Your task to perform on an android device: Search for pizza restaurants on Maps Image 0: 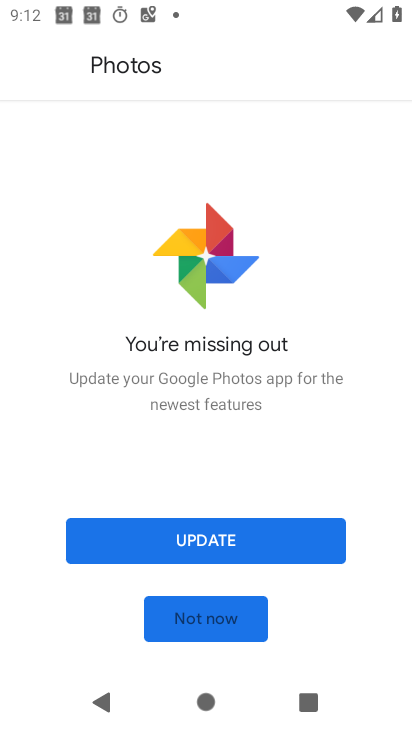
Step 0: press home button
Your task to perform on an android device: Search for pizza restaurants on Maps Image 1: 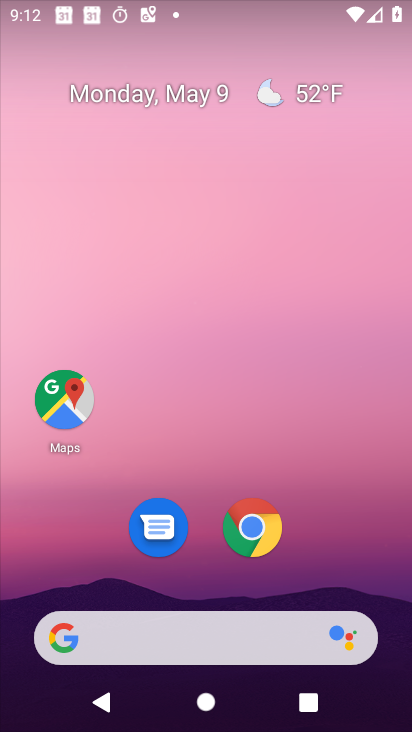
Step 1: drag from (337, 526) to (330, 248)
Your task to perform on an android device: Search for pizza restaurants on Maps Image 2: 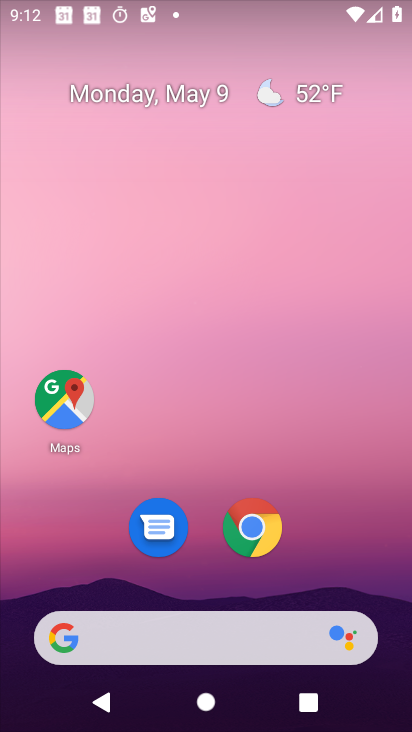
Step 2: drag from (341, 569) to (373, 155)
Your task to perform on an android device: Search for pizza restaurants on Maps Image 3: 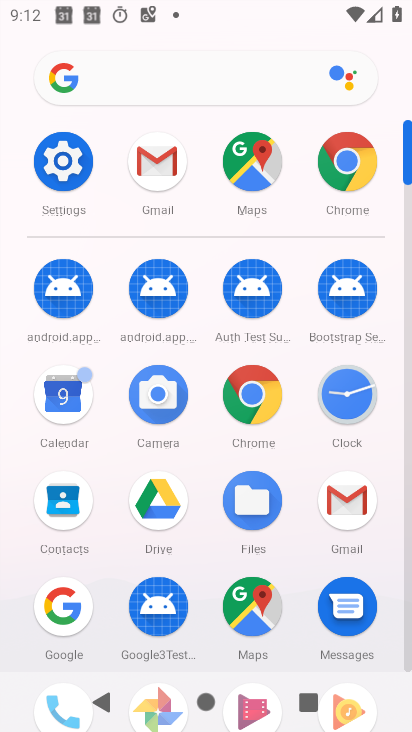
Step 3: click (272, 612)
Your task to perform on an android device: Search for pizza restaurants on Maps Image 4: 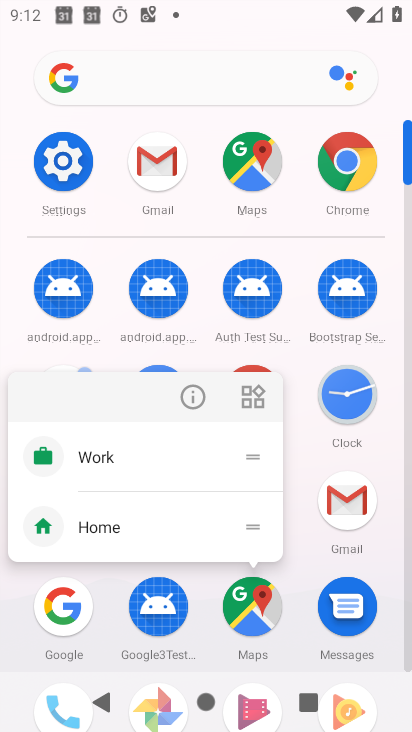
Step 4: click (261, 612)
Your task to perform on an android device: Search for pizza restaurants on Maps Image 5: 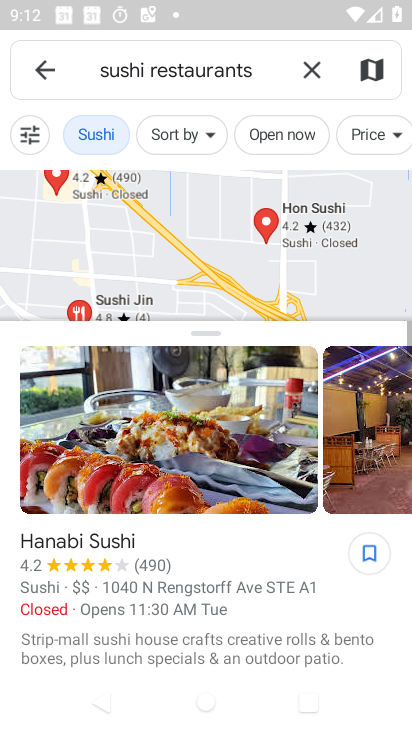
Step 5: click (316, 76)
Your task to perform on an android device: Search for pizza restaurants on Maps Image 6: 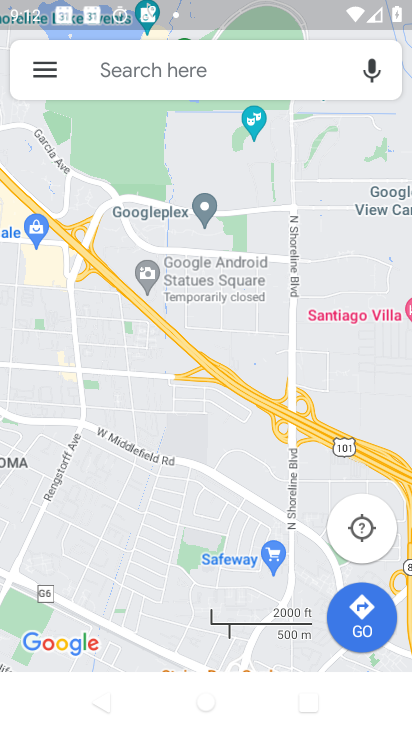
Step 6: click (204, 83)
Your task to perform on an android device: Search for pizza restaurants on Maps Image 7: 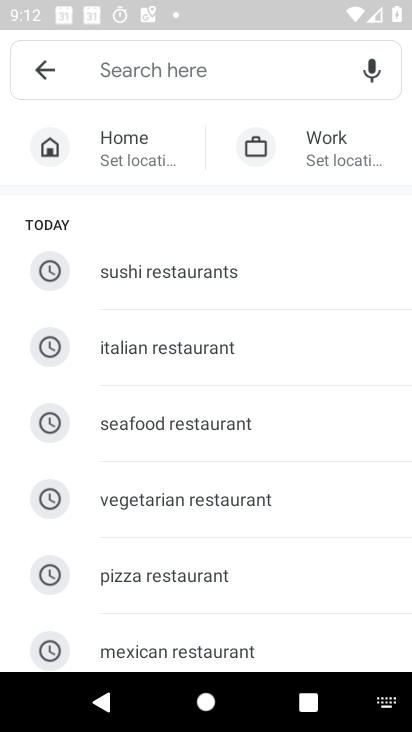
Step 7: type "pizza restaurants "
Your task to perform on an android device: Search for pizza restaurants on Maps Image 8: 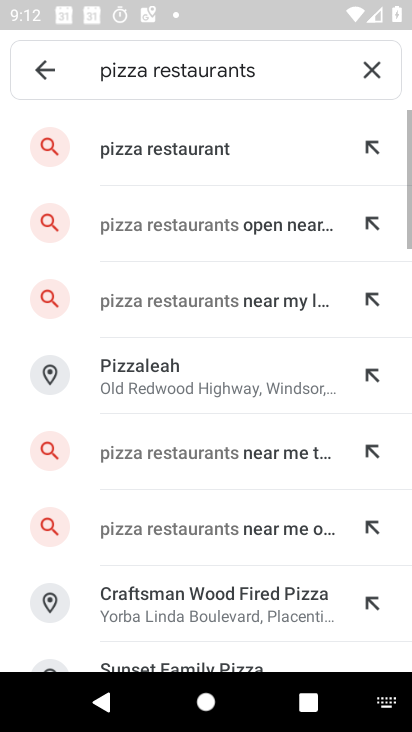
Step 8: click (266, 156)
Your task to perform on an android device: Search for pizza restaurants on Maps Image 9: 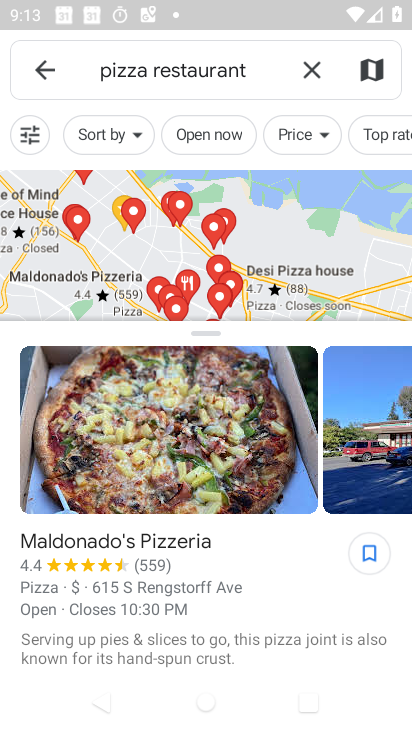
Step 9: task complete